Your task to perform on an android device: choose inbox layout in the gmail app Image 0: 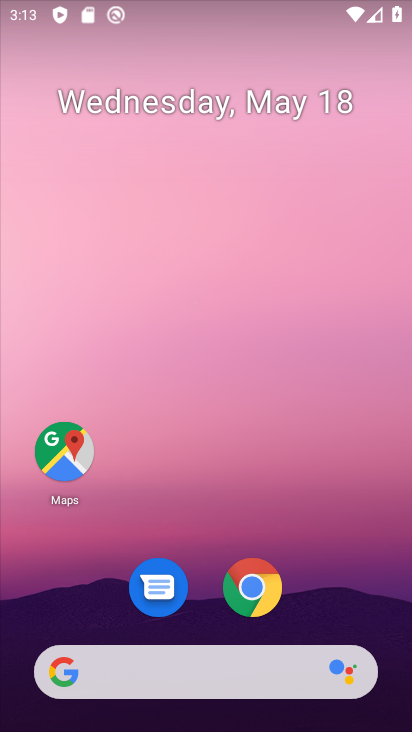
Step 0: drag from (188, 694) to (258, 212)
Your task to perform on an android device: choose inbox layout in the gmail app Image 1: 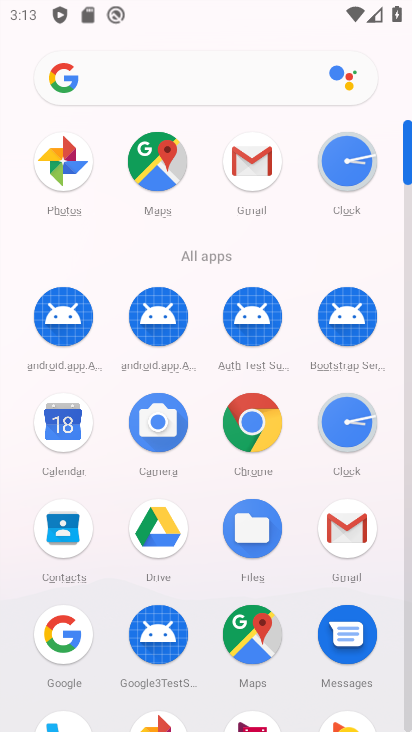
Step 1: click (256, 189)
Your task to perform on an android device: choose inbox layout in the gmail app Image 2: 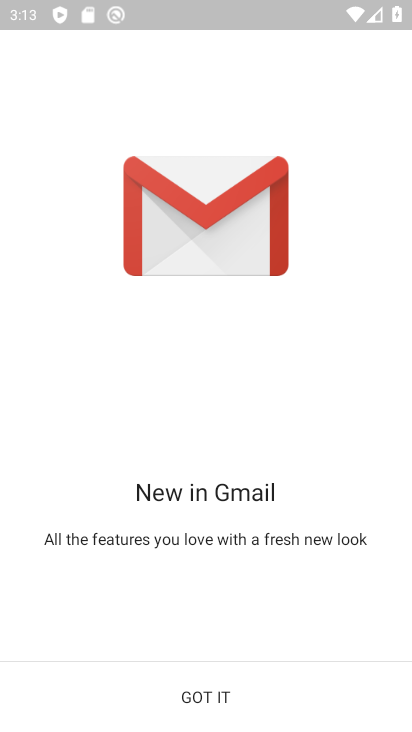
Step 2: click (246, 701)
Your task to perform on an android device: choose inbox layout in the gmail app Image 3: 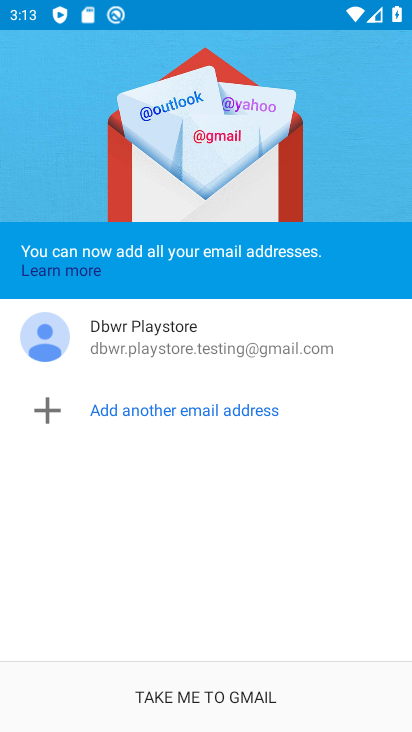
Step 3: click (246, 701)
Your task to perform on an android device: choose inbox layout in the gmail app Image 4: 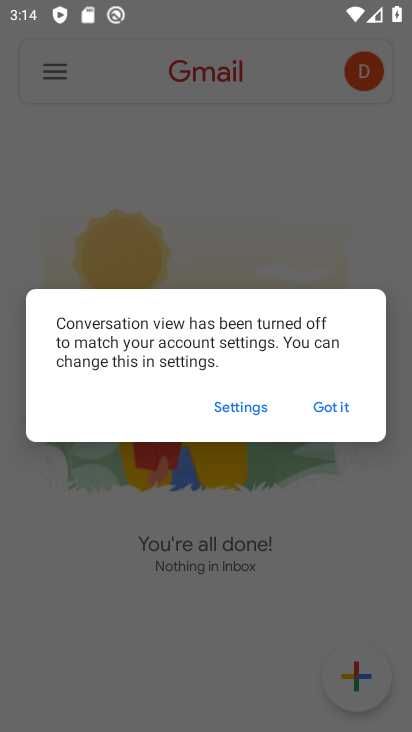
Step 4: click (334, 403)
Your task to perform on an android device: choose inbox layout in the gmail app Image 5: 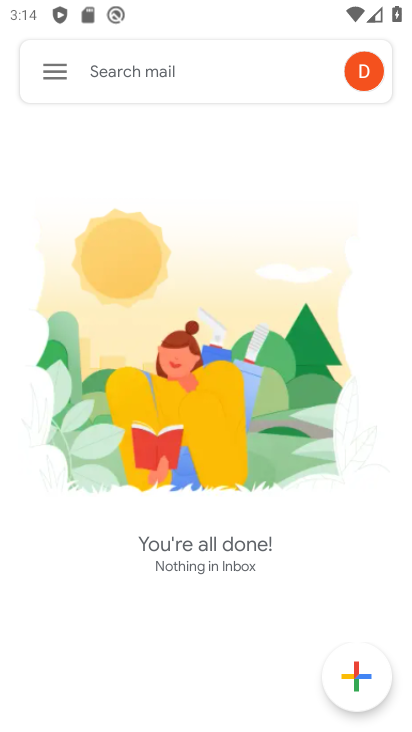
Step 5: click (53, 78)
Your task to perform on an android device: choose inbox layout in the gmail app Image 6: 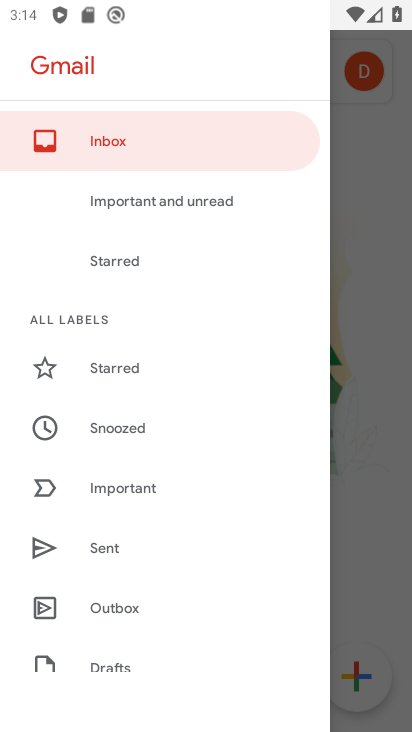
Step 6: drag from (163, 610) to (242, 238)
Your task to perform on an android device: choose inbox layout in the gmail app Image 7: 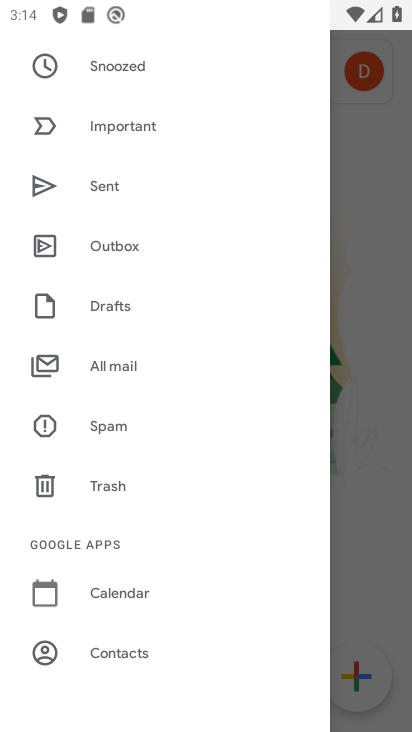
Step 7: drag from (126, 624) to (195, 183)
Your task to perform on an android device: choose inbox layout in the gmail app Image 8: 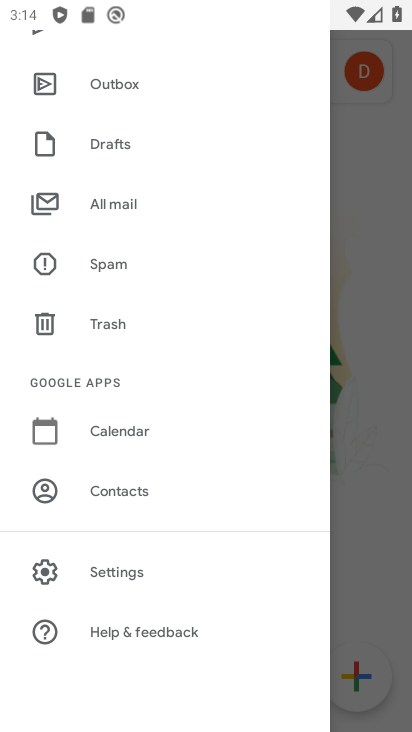
Step 8: click (119, 556)
Your task to perform on an android device: choose inbox layout in the gmail app Image 9: 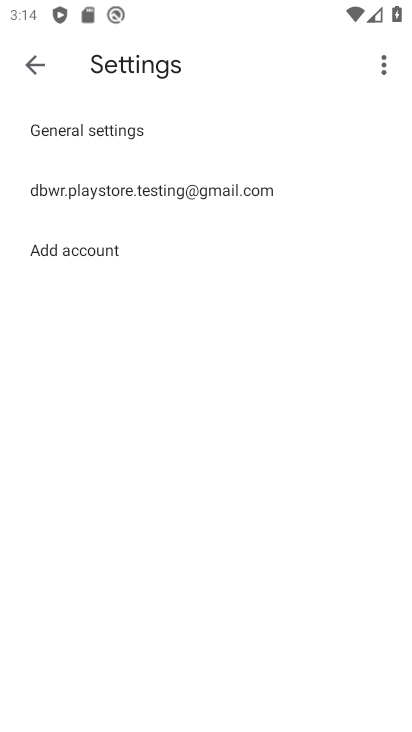
Step 9: click (238, 184)
Your task to perform on an android device: choose inbox layout in the gmail app Image 10: 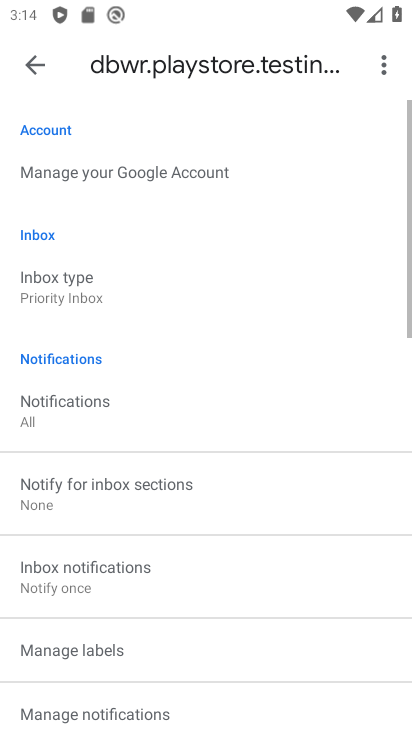
Step 10: click (106, 289)
Your task to perform on an android device: choose inbox layout in the gmail app Image 11: 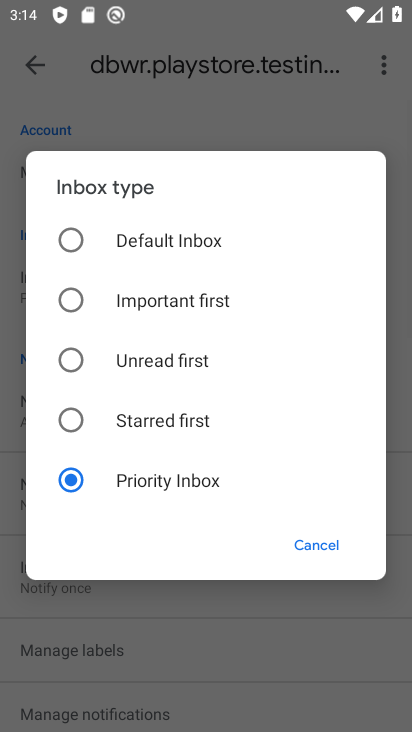
Step 11: click (183, 236)
Your task to perform on an android device: choose inbox layout in the gmail app Image 12: 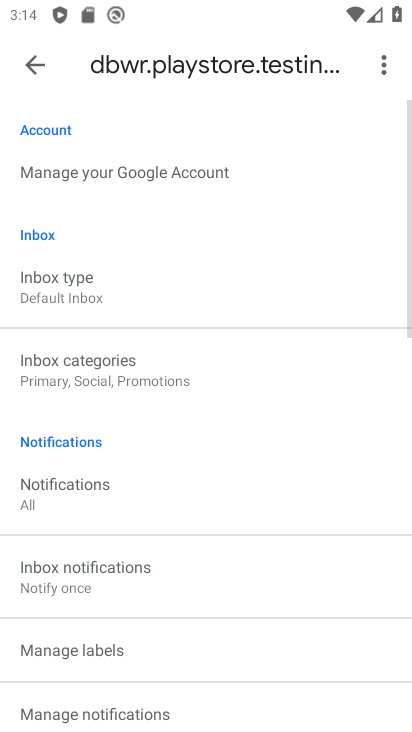
Step 12: task complete